Your task to perform on an android device: turn on the 24-hour format for clock Image 0: 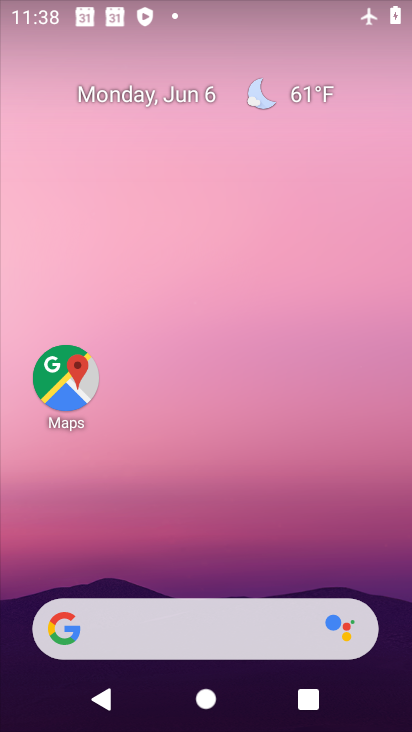
Step 0: drag from (197, 568) to (207, 62)
Your task to perform on an android device: turn on the 24-hour format for clock Image 1: 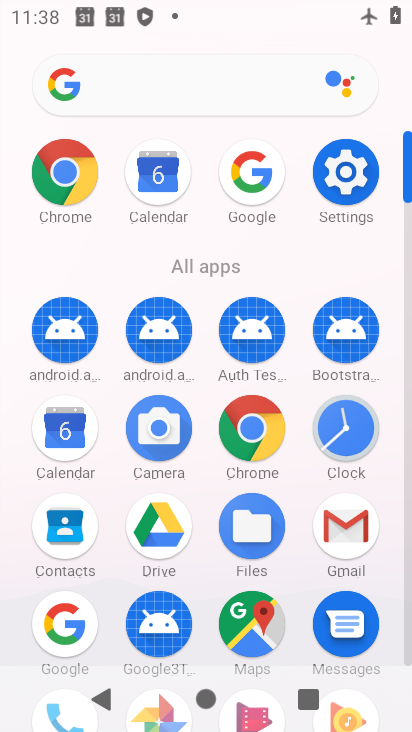
Step 1: click (342, 432)
Your task to perform on an android device: turn on the 24-hour format for clock Image 2: 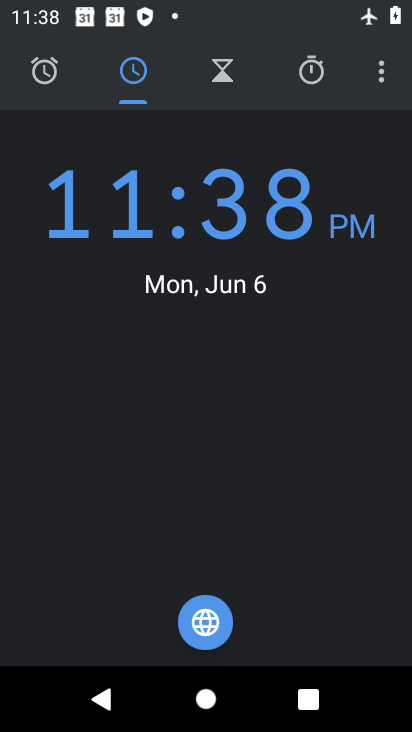
Step 2: click (379, 85)
Your task to perform on an android device: turn on the 24-hour format for clock Image 3: 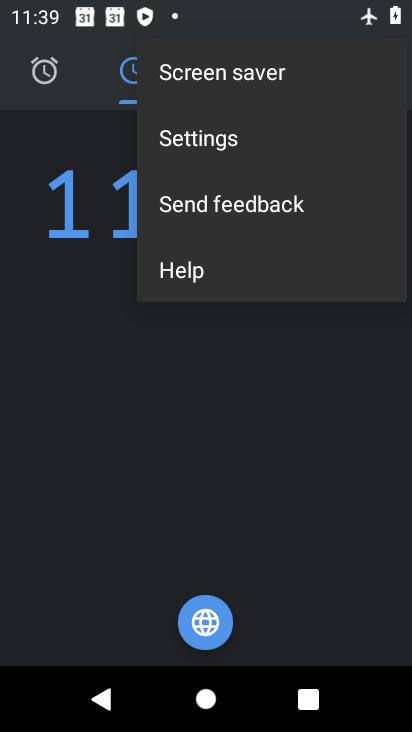
Step 3: click (253, 141)
Your task to perform on an android device: turn on the 24-hour format for clock Image 4: 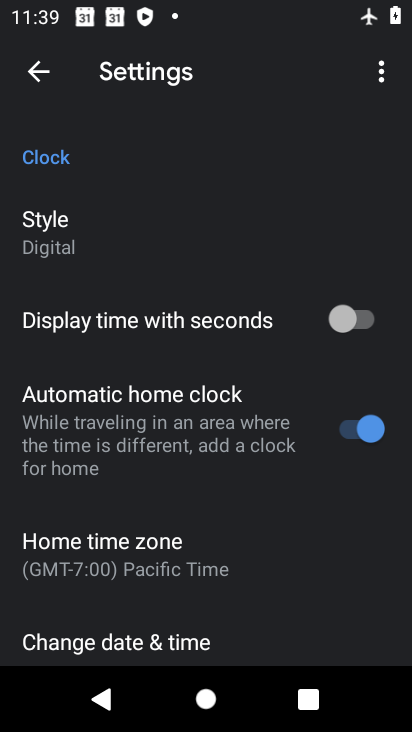
Step 4: click (187, 634)
Your task to perform on an android device: turn on the 24-hour format for clock Image 5: 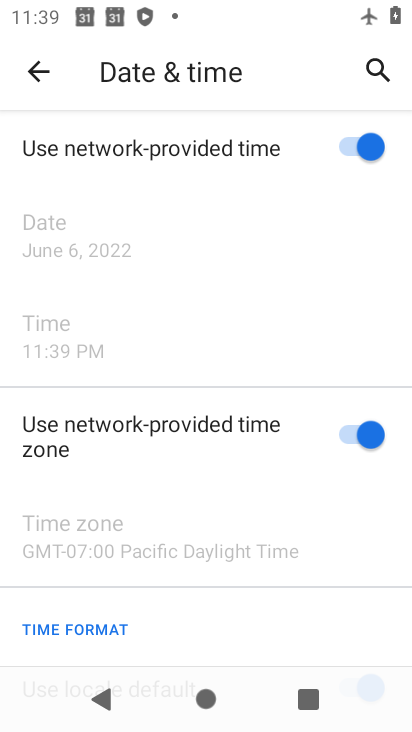
Step 5: drag from (301, 592) to (299, 127)
Your task to perform on an android device: turn on the 24-hour format for clock Image 6: 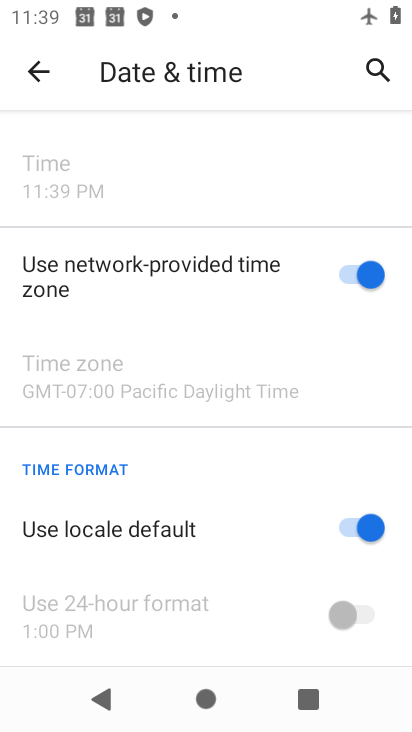
Step 6: click (369, 526)
Your task to perform on an android device: turn on the 24-hour format for clock Image 7: 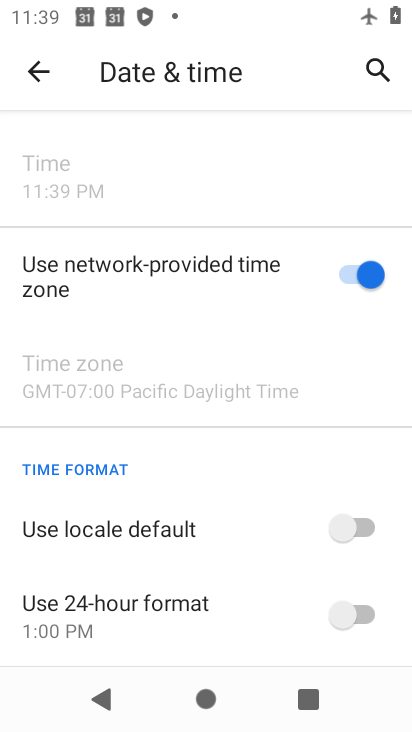
Step 7: click (354, 608)
Your task to perform on an android device: turn on the 24-hour format for clock Image 8: 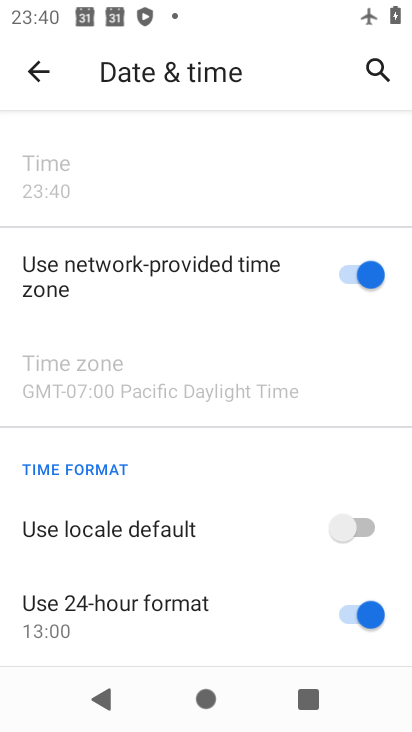
Step 8: task complete